Your task to perform on an android device: Toggle the flashlight Image 0: 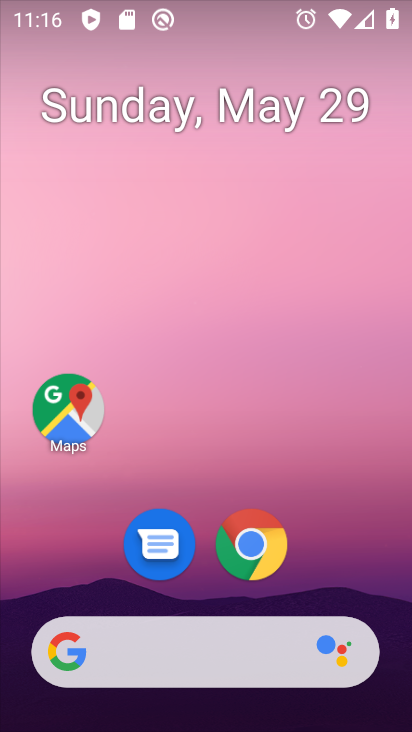
Step 0: press home button
Your task to perform on an android device: Toggle the flashlight Image 1: 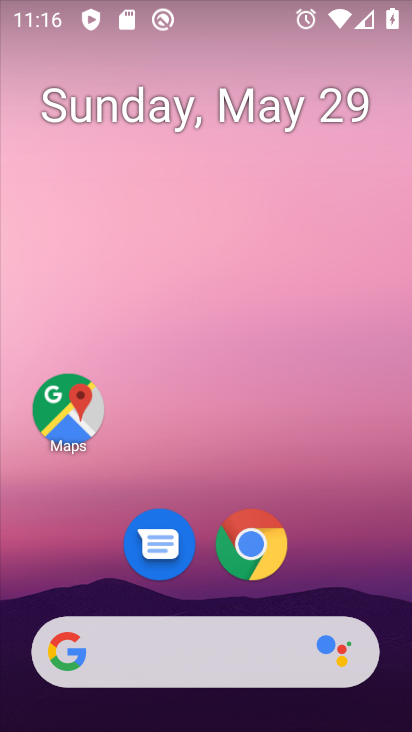
Step 1: drag from (206, 526) to (197, 40)
Your task to perform on an android device: Toggle the flashlight Image 2: 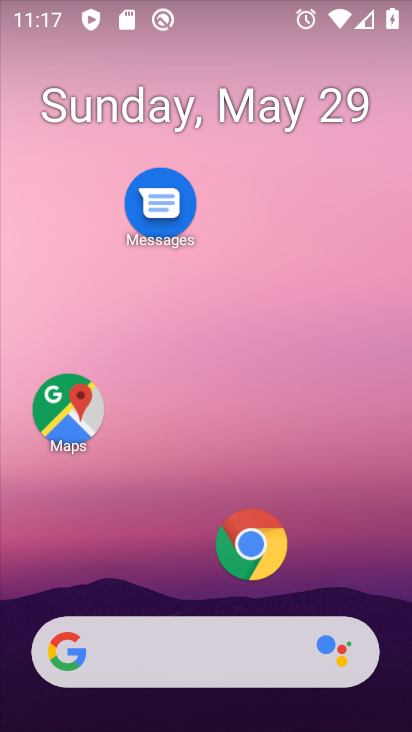
Step 2: drag from (336, 595) to (319, 16)
Your task to perform on an android device: Toggle the flashlight Image 3: 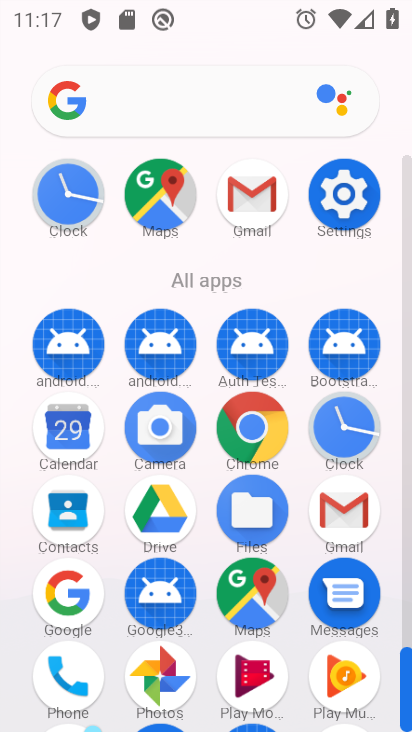
Step 3: click (342, 187)
Your task to perform on an android device: Toggle the flashlight Image 4: 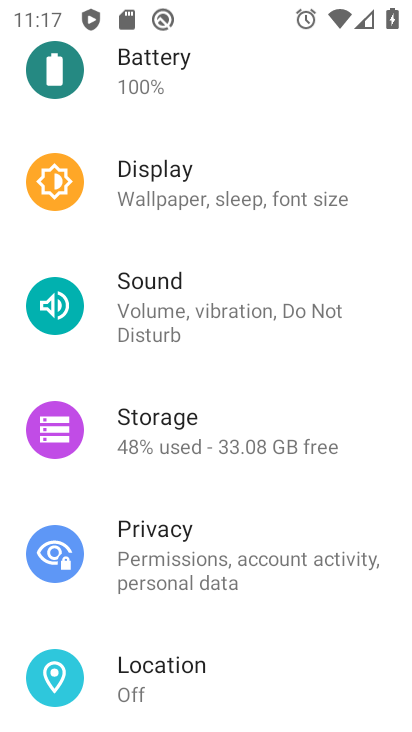
Step 4: drag from (206, 89) to (215, 706)
Your task to perform on an android device: Toggle the flashlight Image 5: 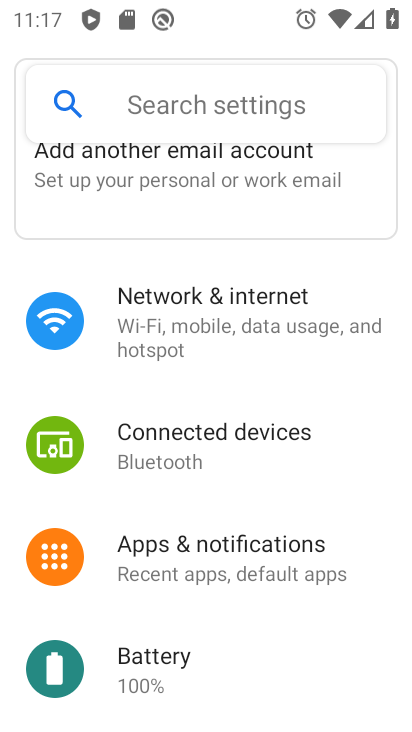
Step 5: click (168, 99)
Your task to perform on an android device: Toggle the flashlight Image 6: 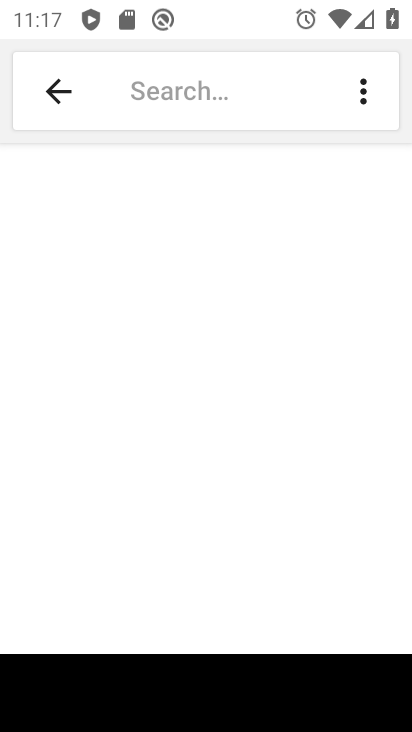
Step 6: type "flashlight"
Your task to perform on an android device: Toggle the flashlight Image 7: 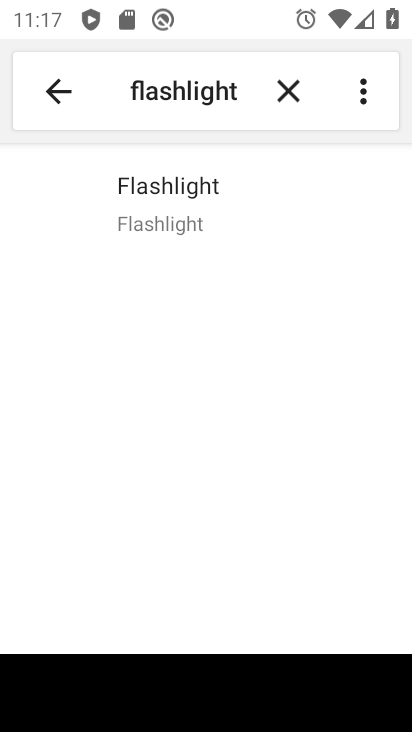
Step 7: click (172, 207)
Your task to perform on an android device: Toggle the flashlight Image 8: 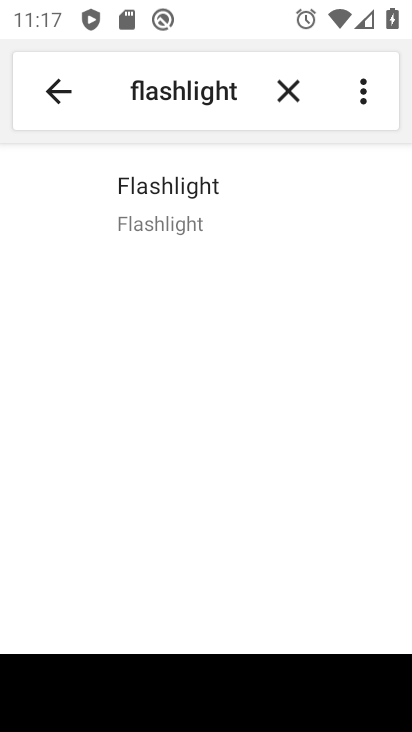
Step 8: click (222, 207)
Your task to perform on an android device: Toggle the flashlight Image 9: 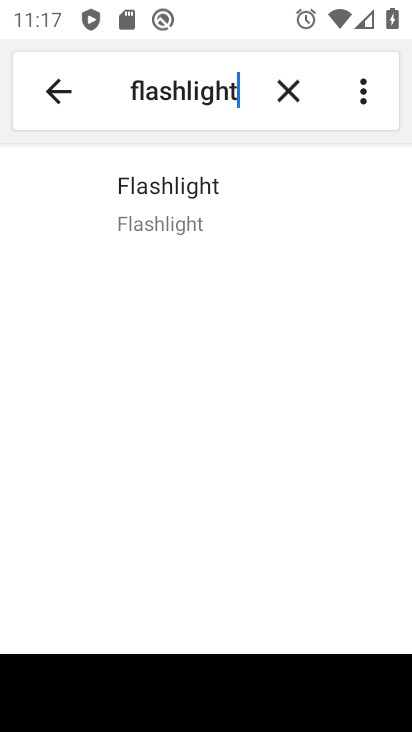
Step 9: task complete